Your task to perform on an android device: check storage Image 0: 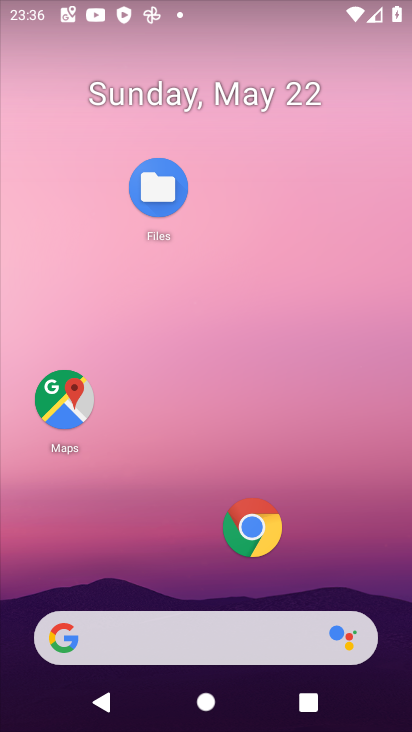
Step 0: drag from (181, 545) to (140, 14)
Your task to perform on an android device: check storage Image 1: 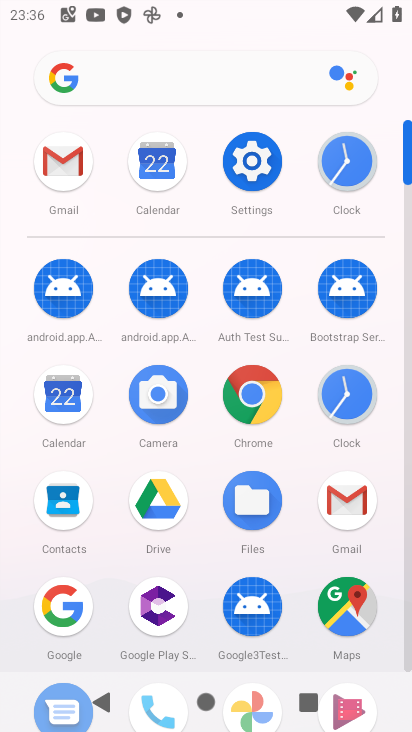
Step 1: click (252, 169)
Your task to perform on an android device: check storage Image 2: 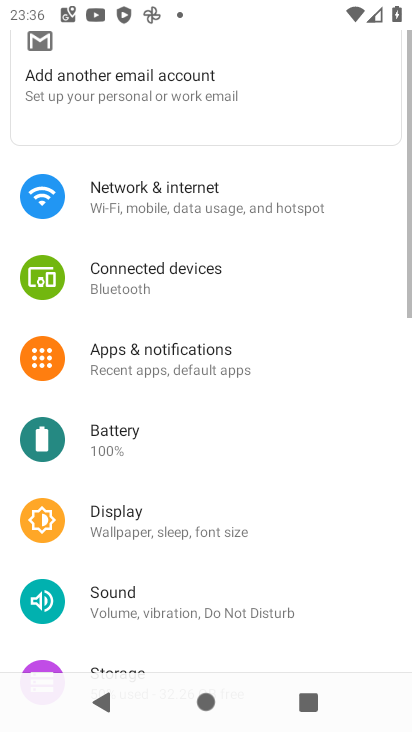
Step 2: click (244, 149)
Your task to perform on an android device: check storage Image 3: 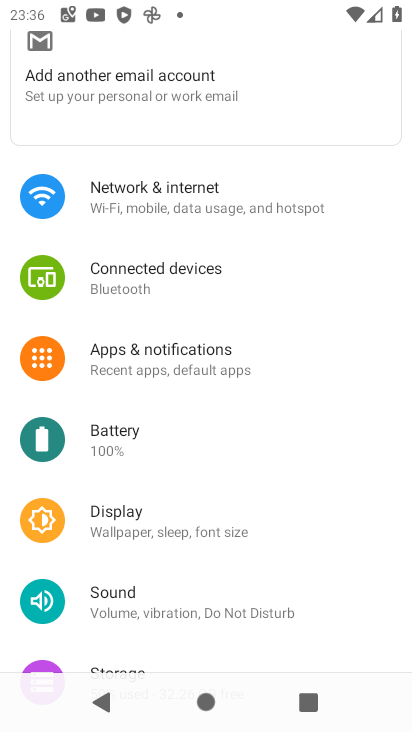
Step 3: drag from (279, 529) to (253, 237)
Your task to perform on an android device: check storage Image 4: 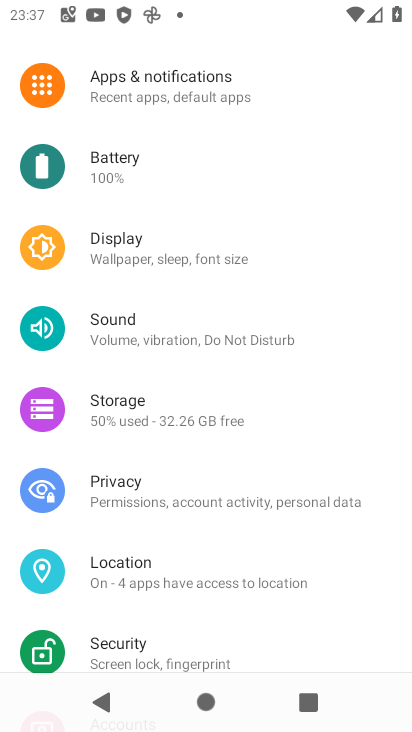
Step 4: click (111, 404)
Your task to perform on an android device: check storage Image 5: 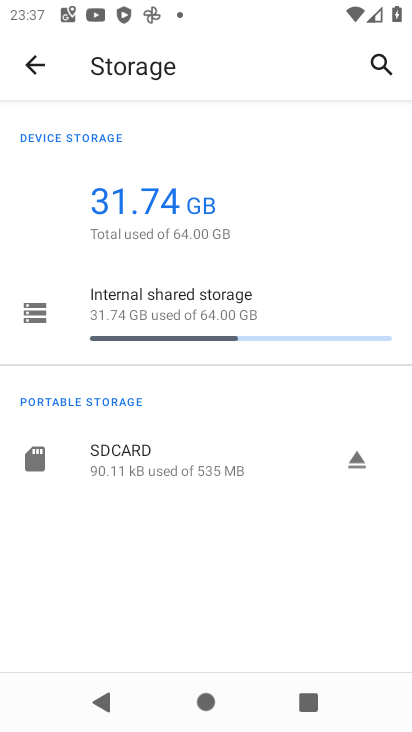
Step 5: task complete